Your task to perform on an android device: Open Youtube and go to the subscriptions tab Image 0: 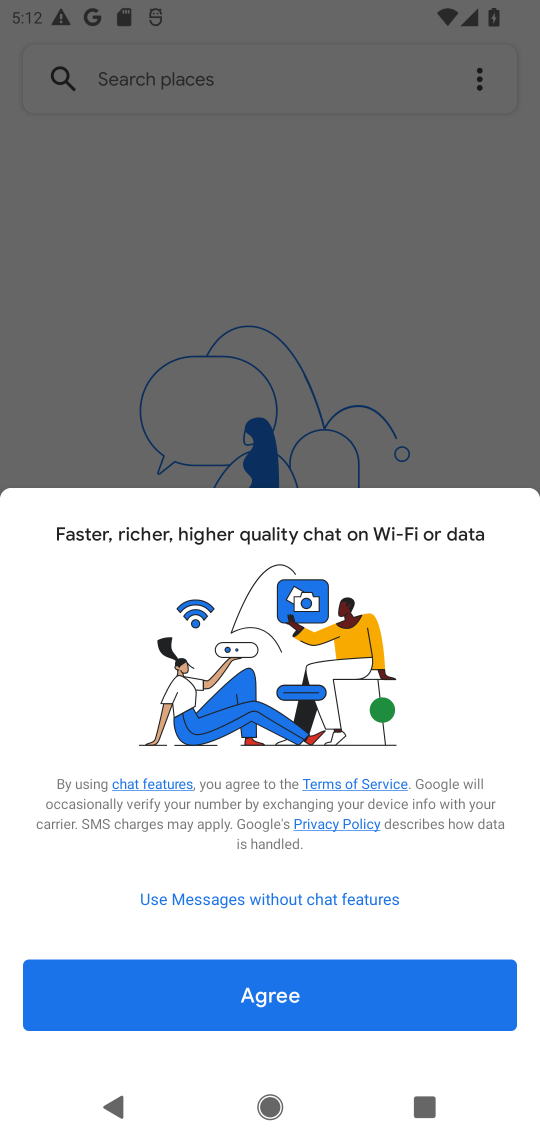
Step 0: press home button
Your task to perform on an android device: Open Youtube and go to the subscriptions tab Image 1: 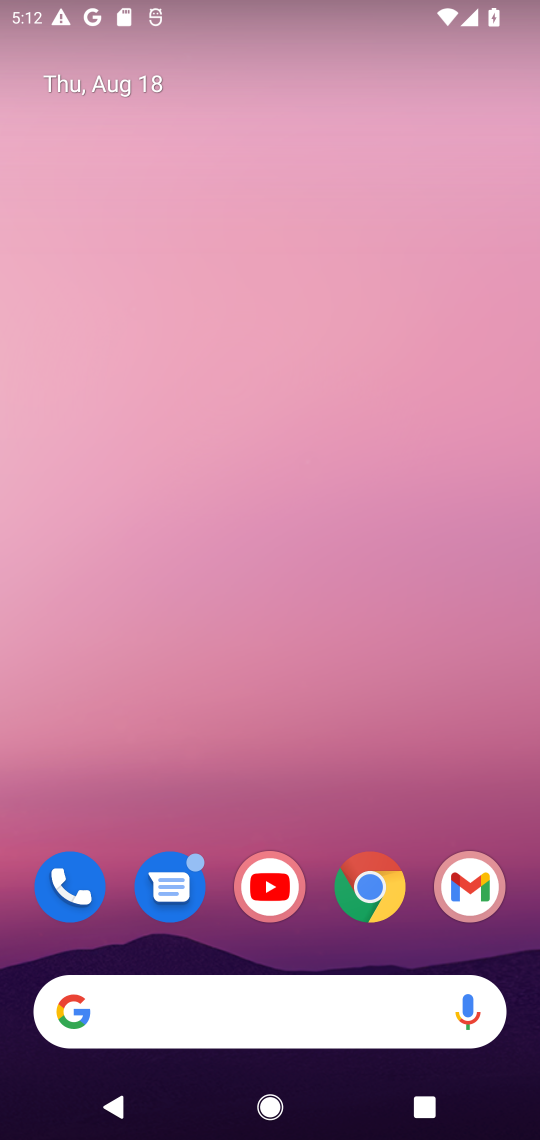
Step 1: task complete